Your task to perform on an android device: Clear the shopping cart on newegg.com. Image 0: 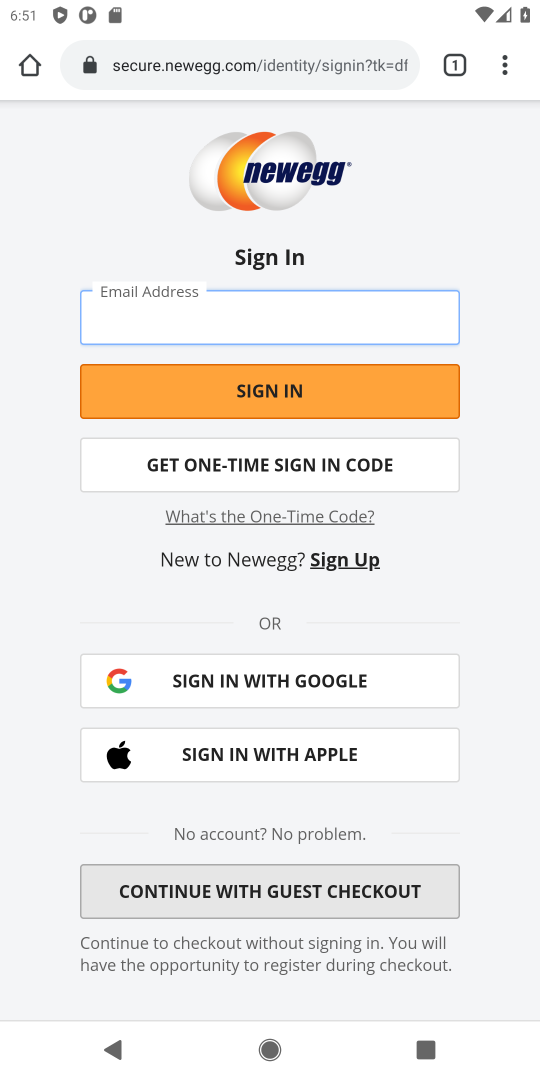
Step 0: press back button
Your task to perform on an android device: Clear the shopping cart on newegg.com. Image 1: 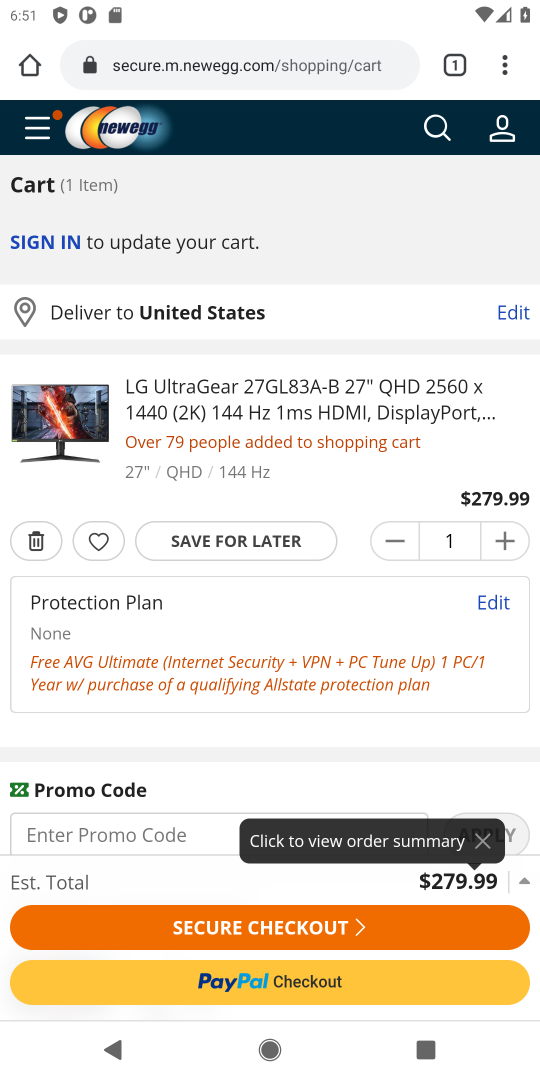
Step 1: click (33, 545)
Your task to perform on an android device: Clear the shopping cart on newegg.com. Image 2: 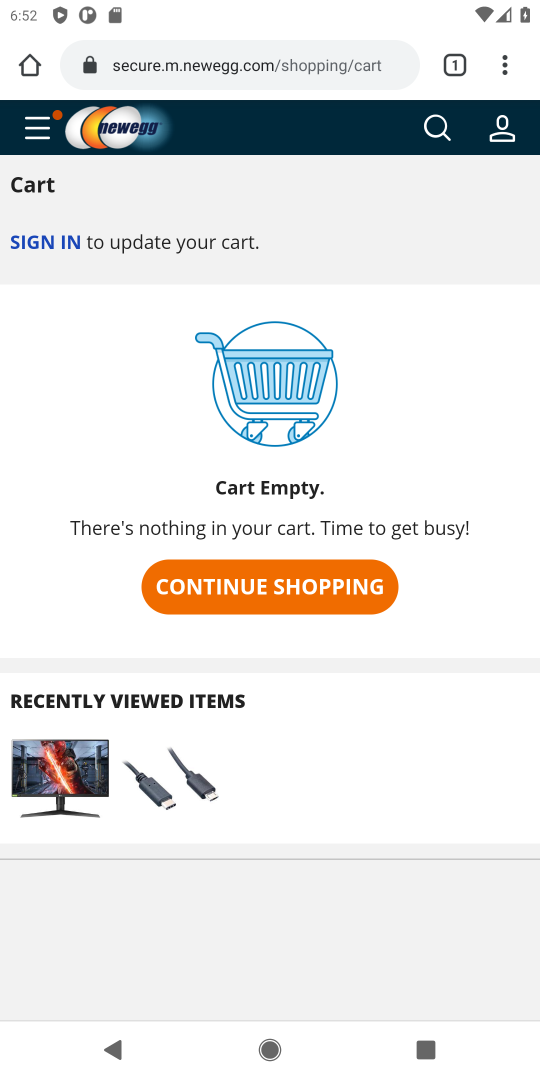
Step 2: task complete